Your task to perform on an android device: open sync settings in chrome Image 0: 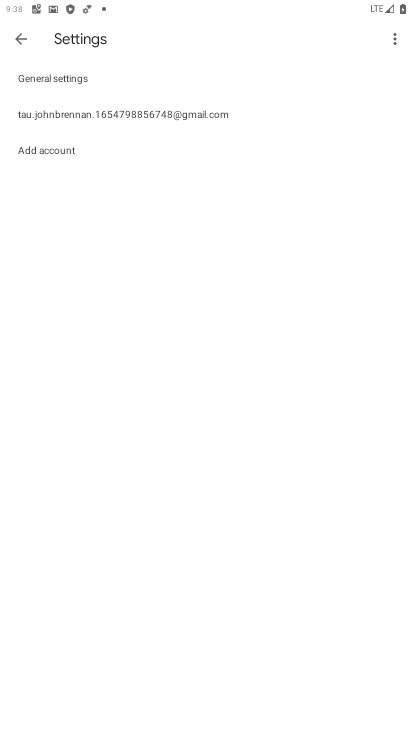
Step 0: press home button
Your task to perform on an android device: open sync settings in chrome Image 1: 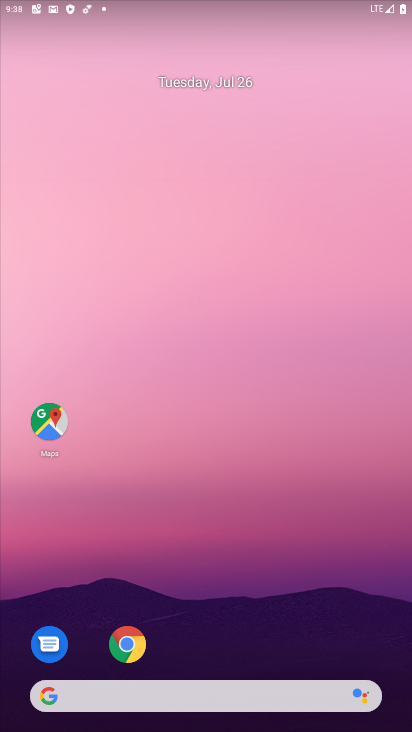
Step 1: click (133, 645)
Your task to perform on an android device: open sync settings in chrome Image 2: 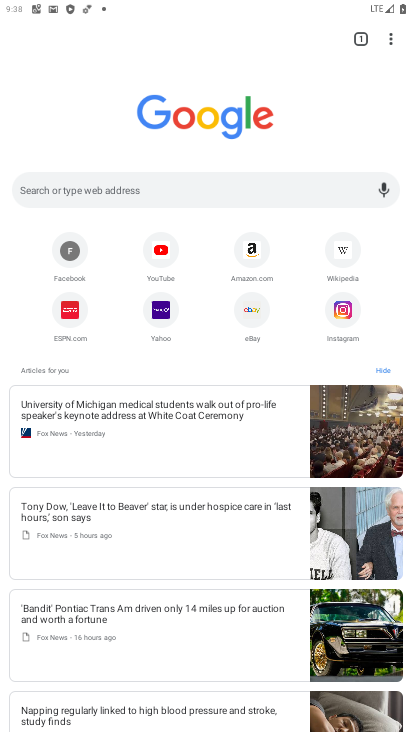
Step 2: click (391, 40)
Your task to perform on an android device: open sync settings in chrome Image 3: 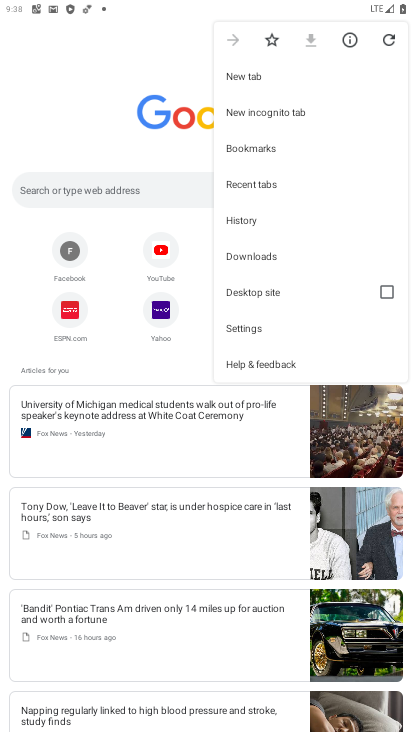
Step 3: click (240, 331)
Your task to perform on an android device: open sync settings in chrome Image 4: 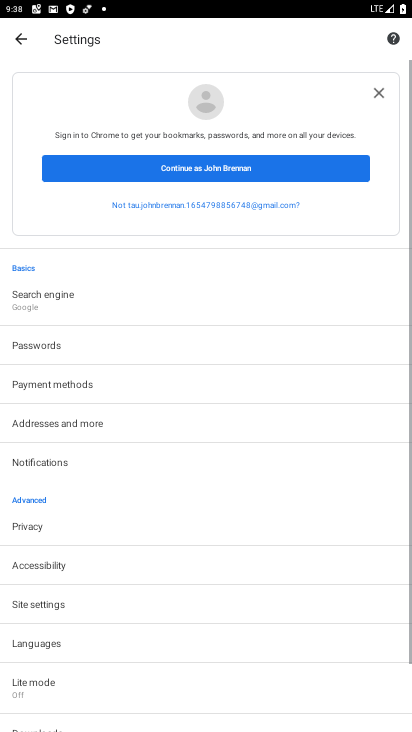
Step 4: click (155, 178)
Your task to perform on an android device: open sync settings in chrome Image 5: 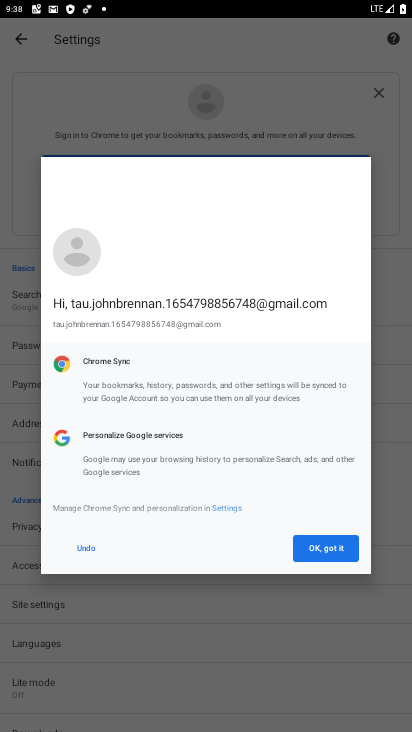
Step 5: click (314, 554)
Your task to perform on an android device: open sync settings in chrome Image 6: 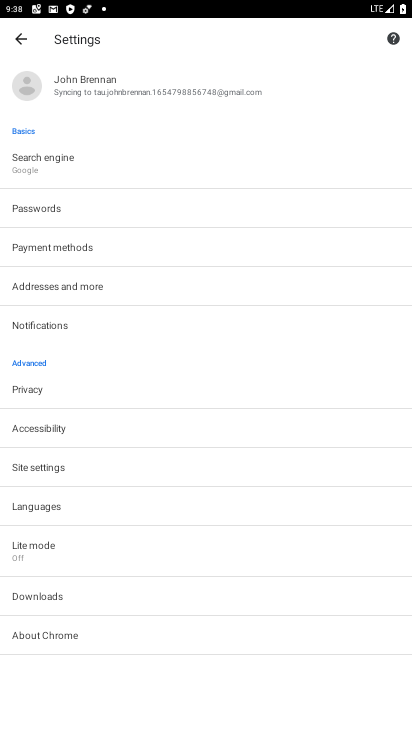
Step 6: click (102, 96)
Your task to perform on an android device: open sync settings in chrome Image 7: 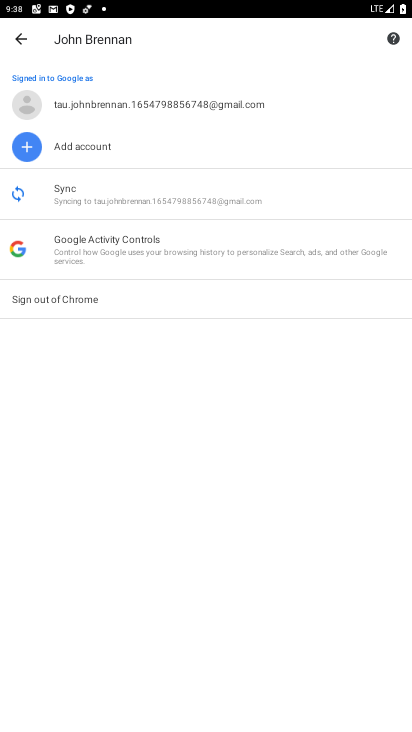
Step 7: click (76, 201)
Your task to perform on an android device: open sync settings in chrome Image 8: 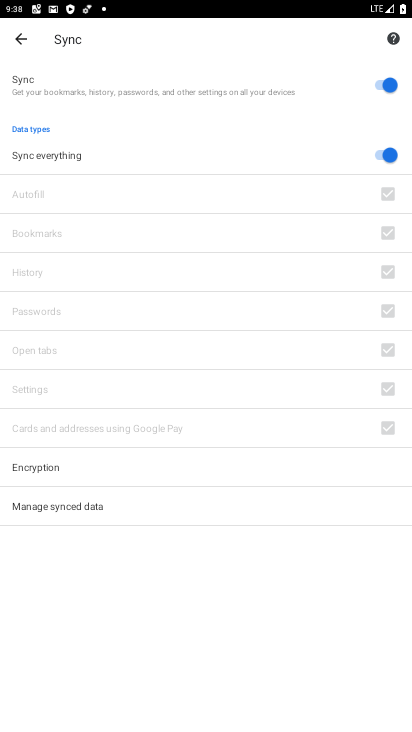
Step 8: task complete